Your task to perform on an android device: snooze an email in the gmail app Image 0: 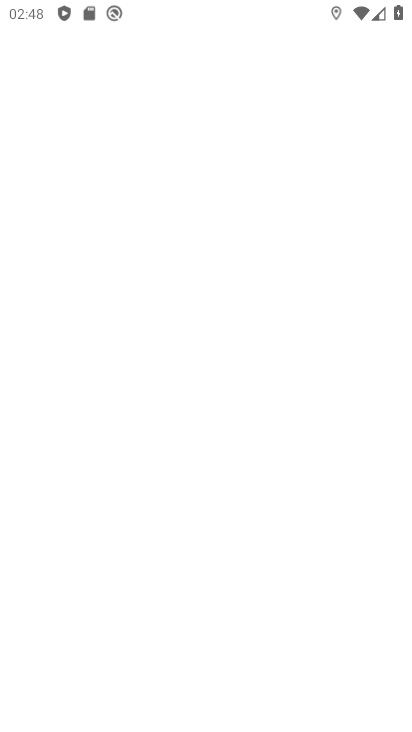
Step 0: drag from (397, 596) to (410, 521)
Your task to perform on an android device: snooze an email in the gmail app Image 1: 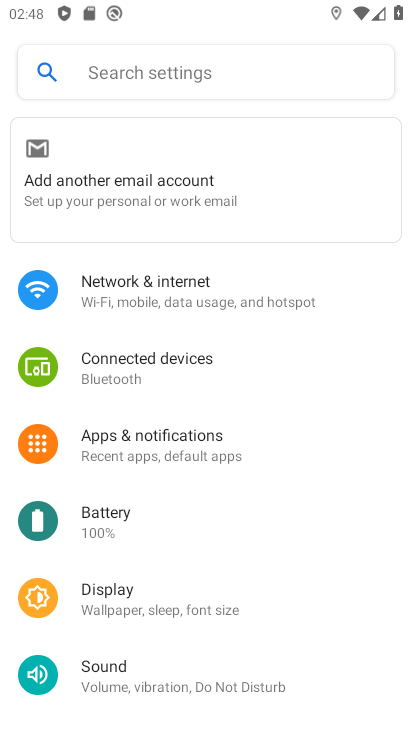
Step 1: press home button
Your task to perform on an android device: snooze an email in the gmail app Image 2: 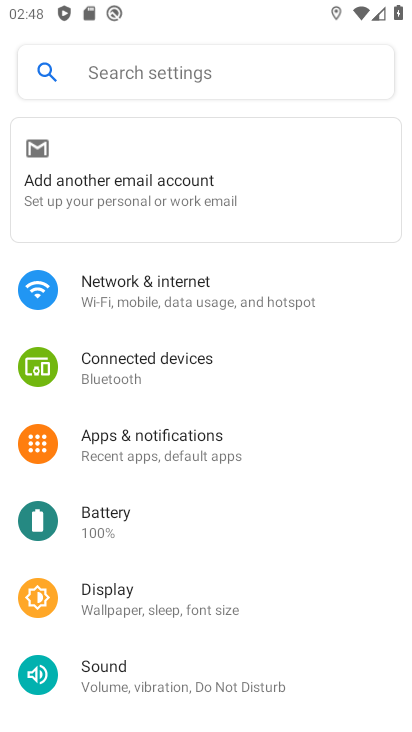
Step 2: click (410, 521)
Your task to perform on an android device: snooze an email in the gmail app Image 3: 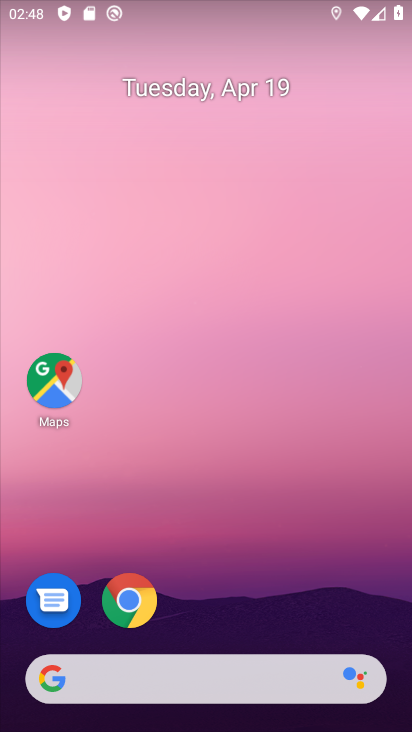
Step 3: drag from (300, 602) to (282, 206)
Your task to perform on an android device: snooze an email in the gmail app Image 4: 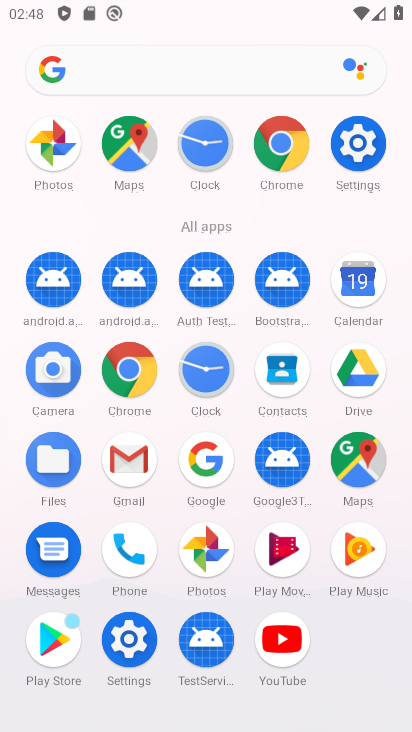
Step 4: click (142, 471)
Your task to perform on an android device: snooze an email in the gmail app Image 5: 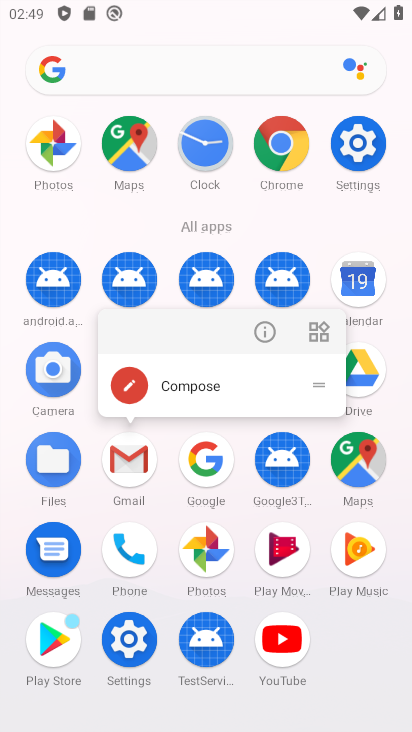
Step 5: click (132, 464)
Your task to perform on an android device: snooze an email in the gmail app Image 6: 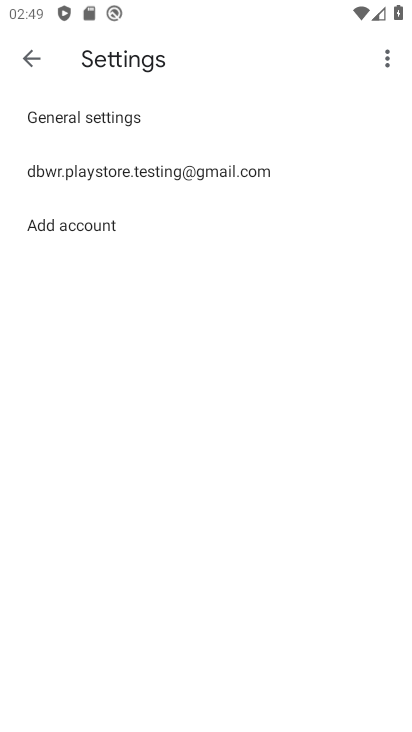
Step 6: click (273, 177)
Your task to perform on an android device: snooze an email in the gmail app Image 7: 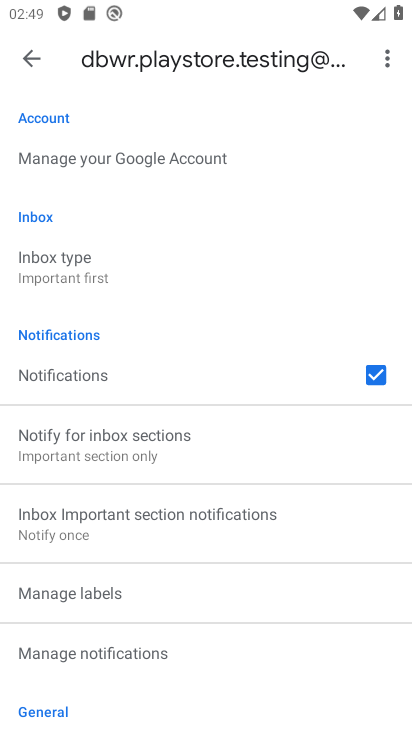
Step 7: drag from (288, 631) to (255, 254)
Your task to perform on an android device: snooze an email in the gmail app Image 8: 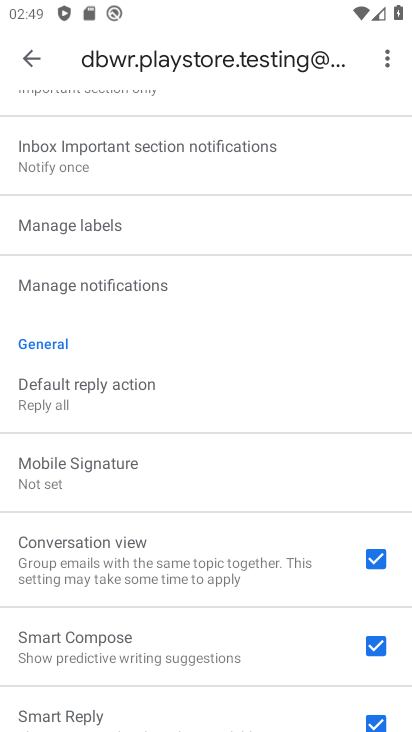
Step 8: click (25, 57)
Your task to perform on an android device: snooze an email in the gmail app Image 9: 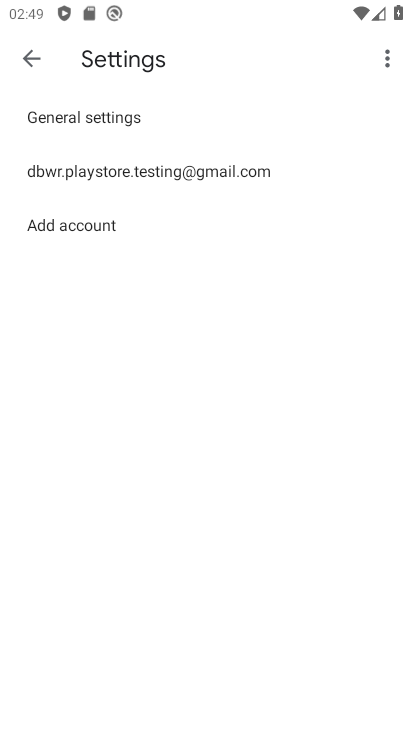
Step 9: click (25, 57)
Your task to perform on an android device: snooze an email in the gmail app Image 10: 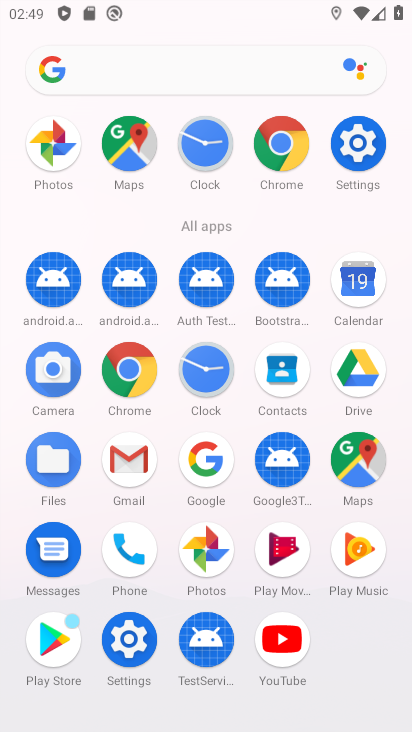
Step 10: click (125, 461)
Your task to perform on an android device: snooze an email in the gmail app Image 11: 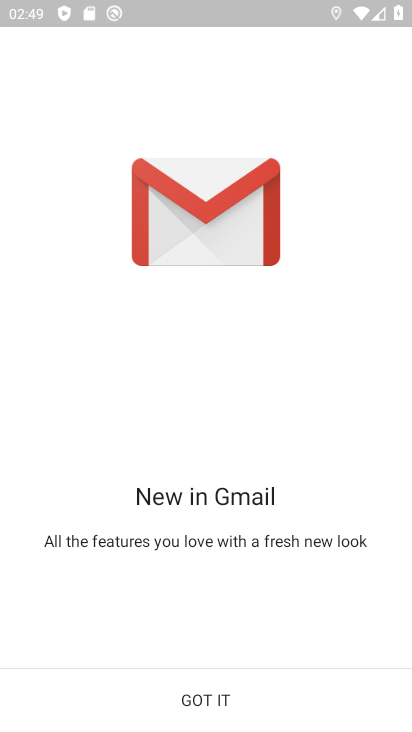
Step 11: click (214, 706)
Your task to perform on an android device: snooze an email in the gmail app Image 12: 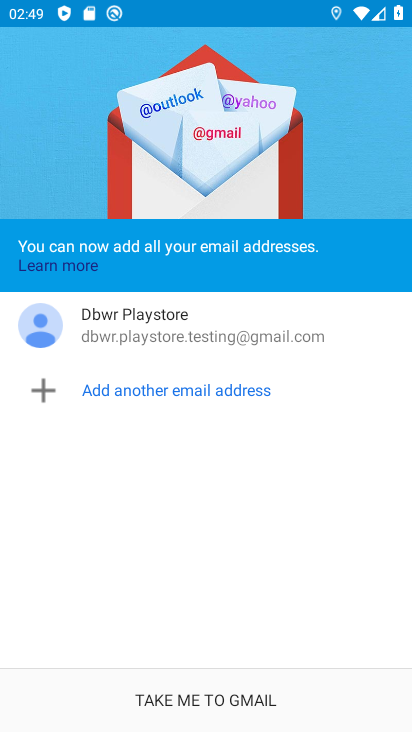
Step 12: click (214, 706)
Your task to perform on an android device: snooze an email in the gmail app Image 13: 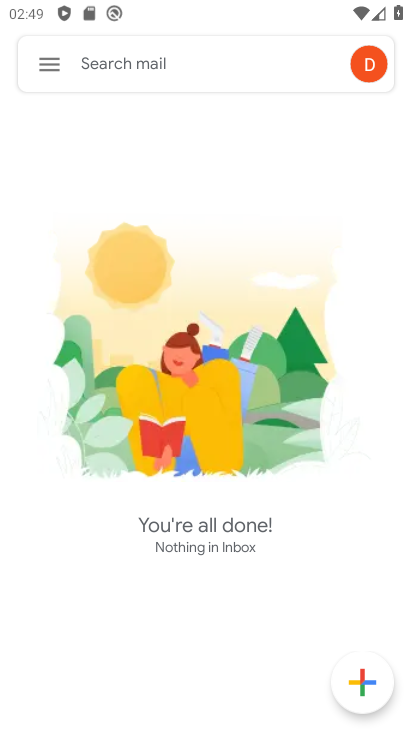
Step 13: click (49, 72)
Your task to perform on an android device: snooze an email in the gmail app Image 14: 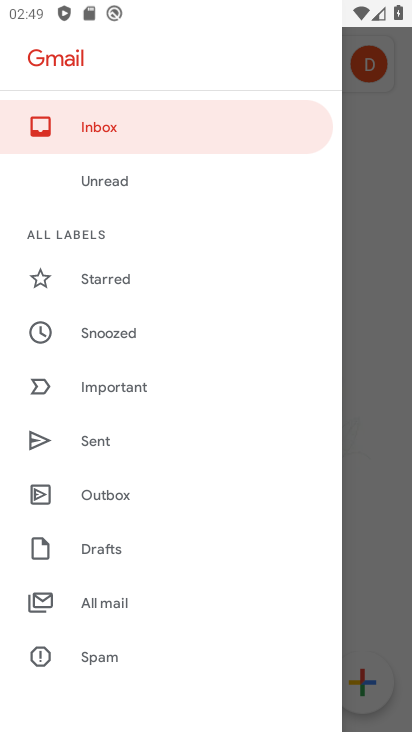
Step 14: click (145, 610)
Your task to perform on an android device: snooze an email in the gmail app Image 15: 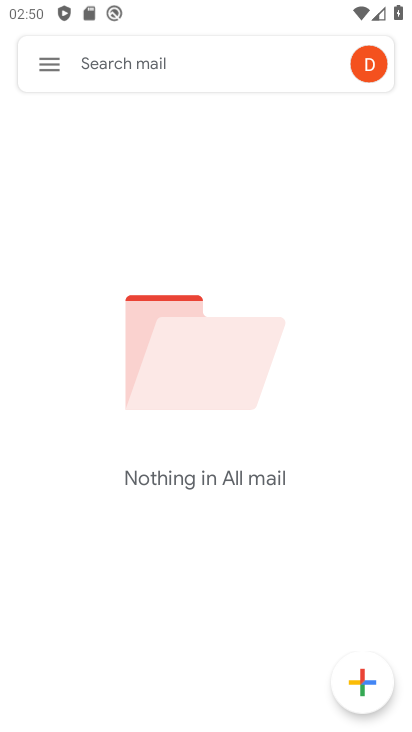
Step 15: task complete